Your task to perform on an android device: Open Google Maps Image 0: 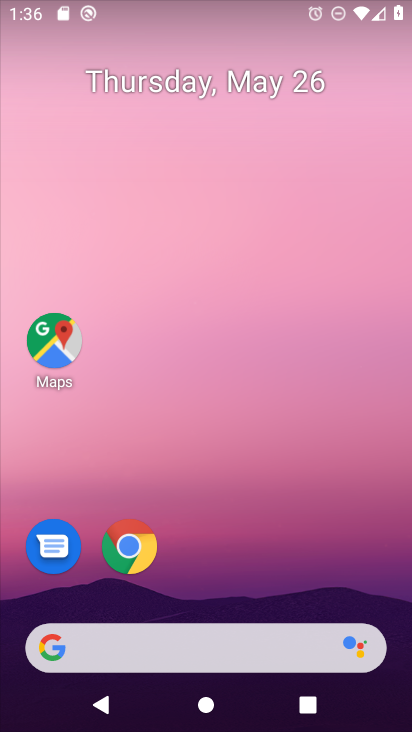
Step 0: click (43, 345)
Your task to perform on an android device: Open Google Maps Image 1: 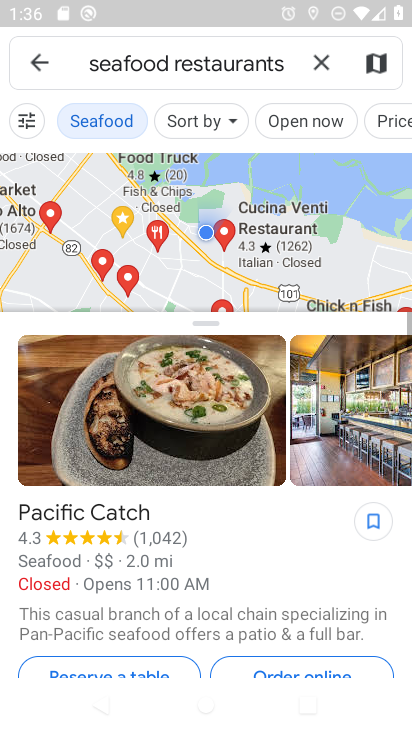
Step 1: click (324, 73)
Your task to perform on an android device: Open Google Maps Image 2: 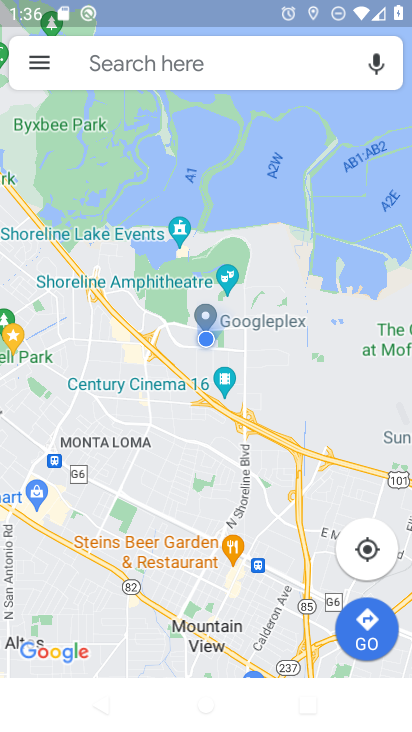
Step 2: task complete